Your task to perform on an android device: open a new tab in the chrome app Image 0: 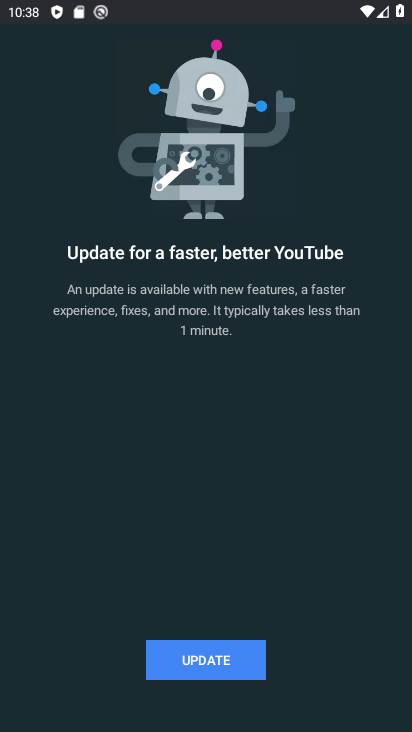
Step 0: press home button
Your task to perform on an android device: open a new tab in the chrome app Image 1: 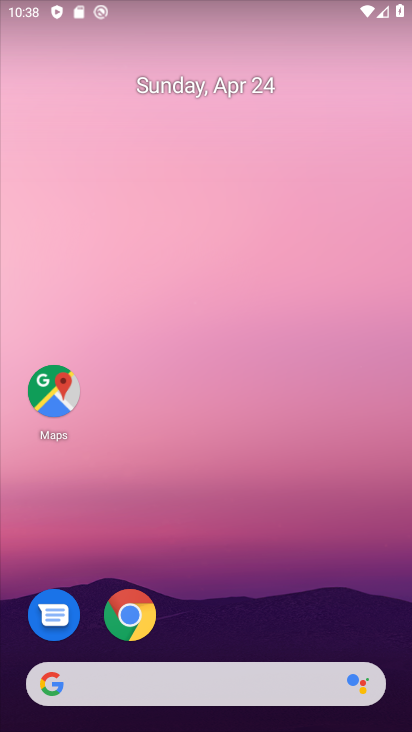
Step 1: drag from (239, 643) to (290, 62)
Your task to perform on an android device: open a new tab in the chrome app Image 2: 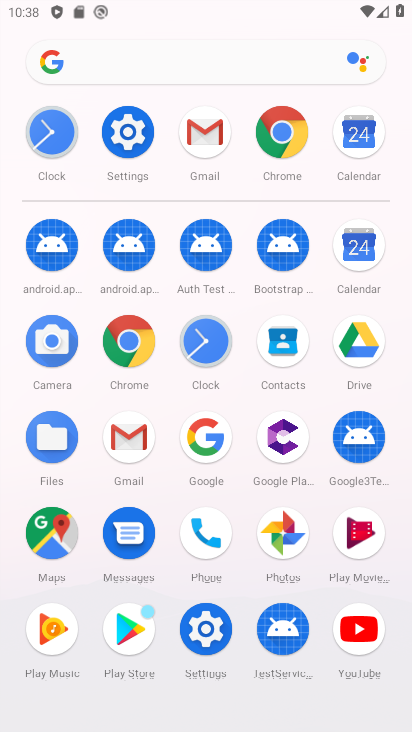
Step 2: click (128, 334)
Your task to perform on an android device: open a new tab in the chrome app Image 3: 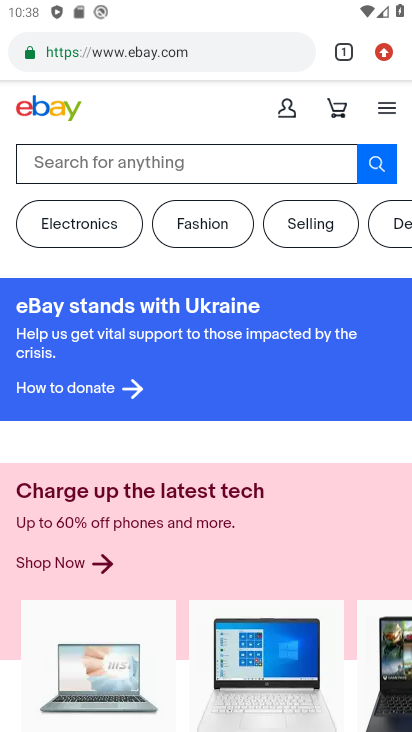
Step 3: click (341, 45)
Your task to perform on an android device: open a new tab in the chrome app Image 4: 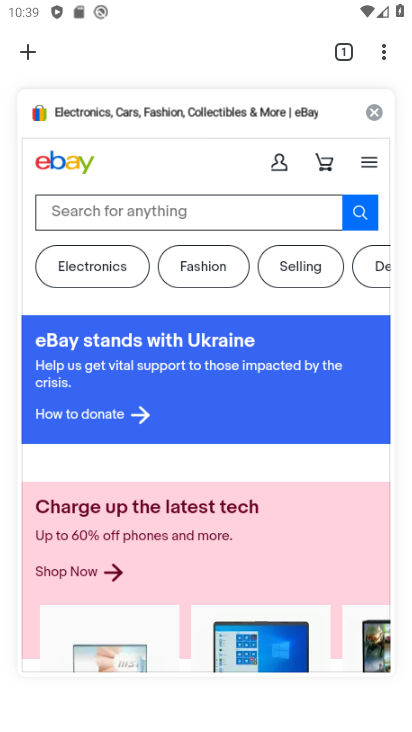
Step 4: click (31, 53)
Your task to perform on an android device: open a new tab in the chrome app Image 5: 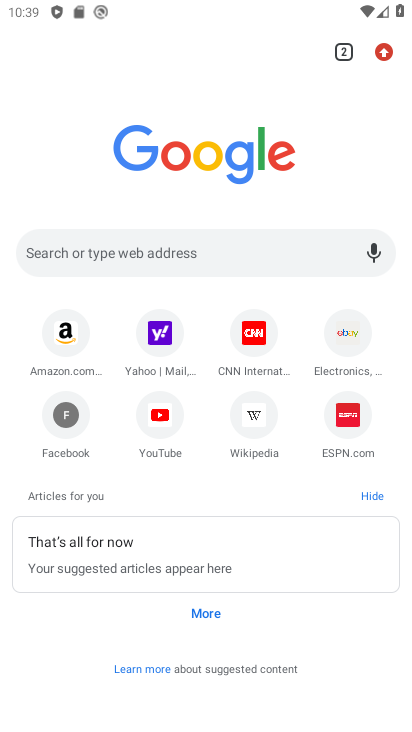
Step 5: task complete